Your task to perform on an android device: turn off notifications settings in the gmail app Image 0: 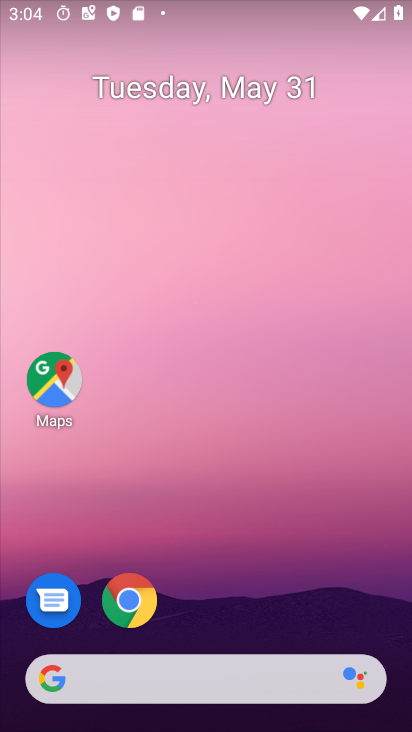
Step 0: drag from (211, 627) to (258, 135)
Your task to perform on an android device: turn off notifications settings in the gmail app Image 1: 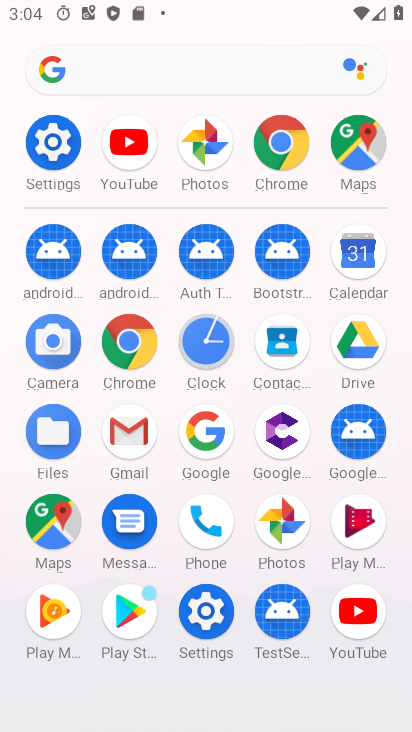
Step 1: click (130, 431)
Your task to perform on an android device: turn off notifications settings in the gmail app Image 2: 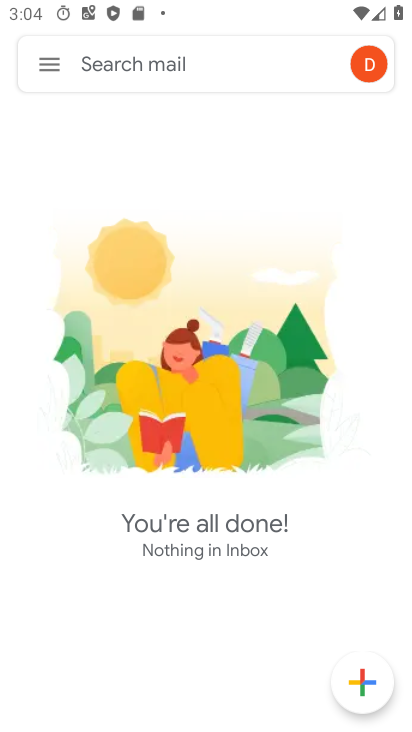
Step 2: click (49, 65)
Your task to perform on an android device: turn off notifications settings in the gmail app Image 3: 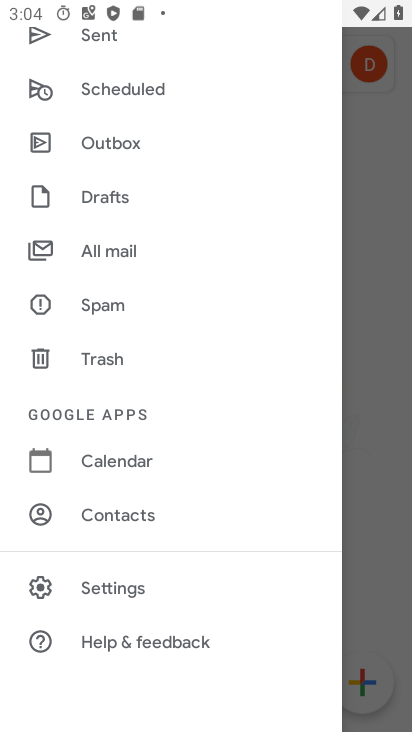
Step 3: click (121, 576)
Your task to perform on an android device: turn off notifications settings in the gmail app Image 4: 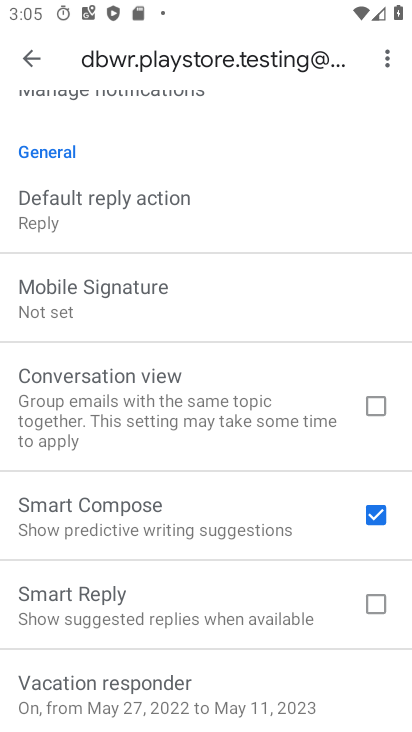
Step 4: click (31, 54)
Your task to perform on an android device: turn off notifications settings in the gmail app Image 5: 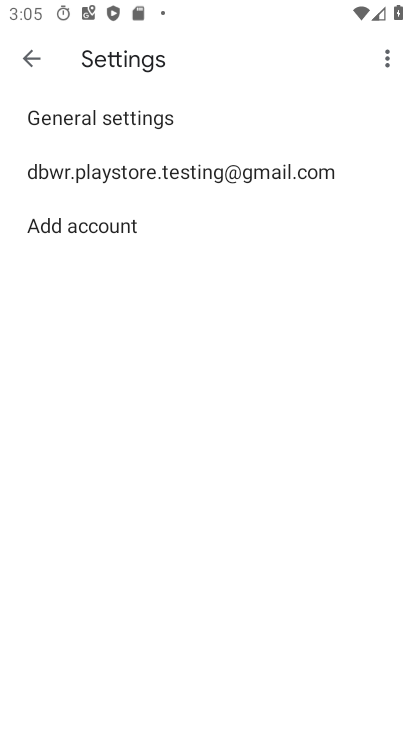
Step 5: click (105, 113)
Your task to perform on an android device: turn off notifications settings in the gmail app Image 6: 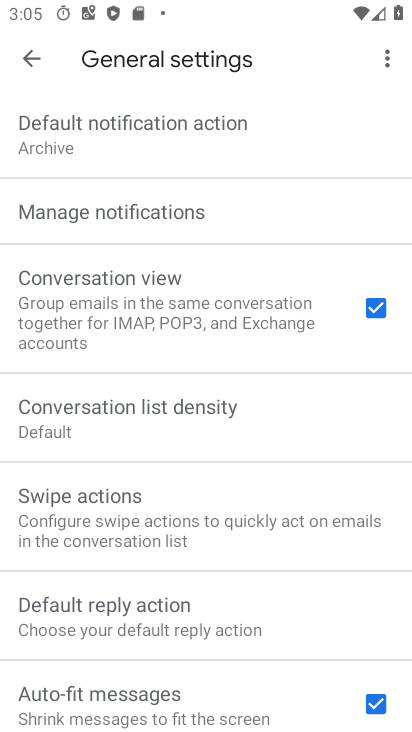
Step 6: click (221, 210)
Your task to perform on an android device: turn off notifications settings in the gmail app Image 7: 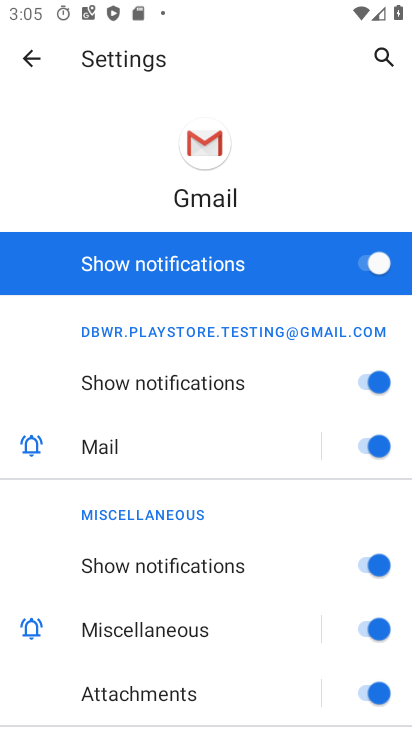
Step 7: click (371, 255)
Your task to perform on an android device: turn off notifications settings in the gmail app Image 8: 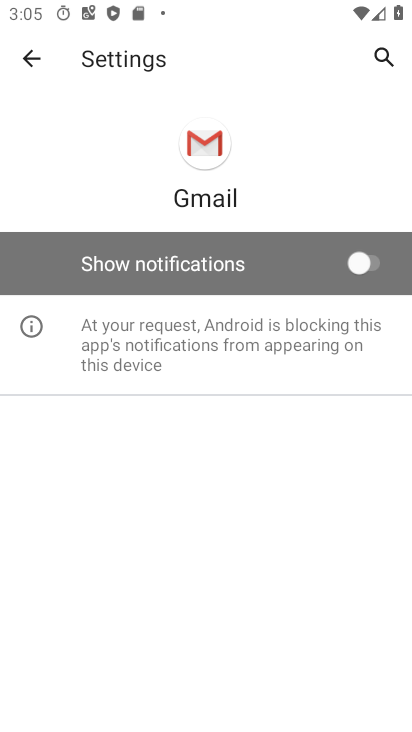
Step 8: task complete